Your task to perform on an android device: allow cookies in the chrome app Image 0: 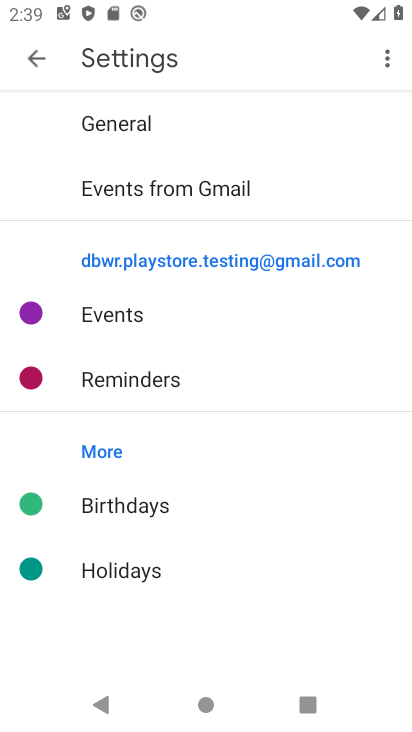
Step 0: press home button
Your task to perform on an android device: allow cookies in the chrome app Image 1: 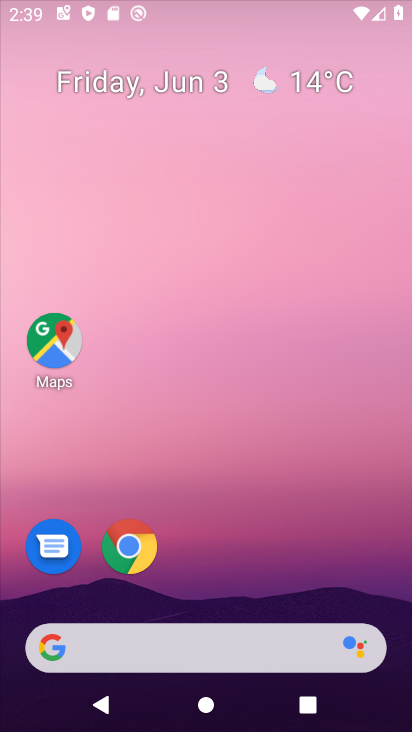
Step 1: drag from (264, 556) to (358, 0)
Your task to perform on an android device: allow cookies in the chrome app Image 2: 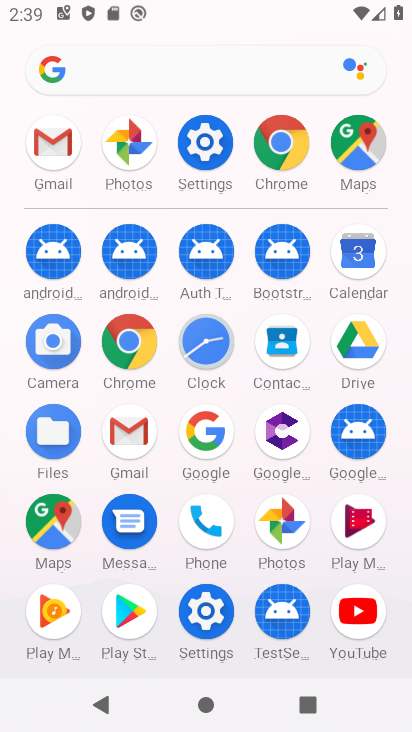
Step 2: click (279, 152)
Your task to perform on an android device: allow cookies in the chrome app Image 3: 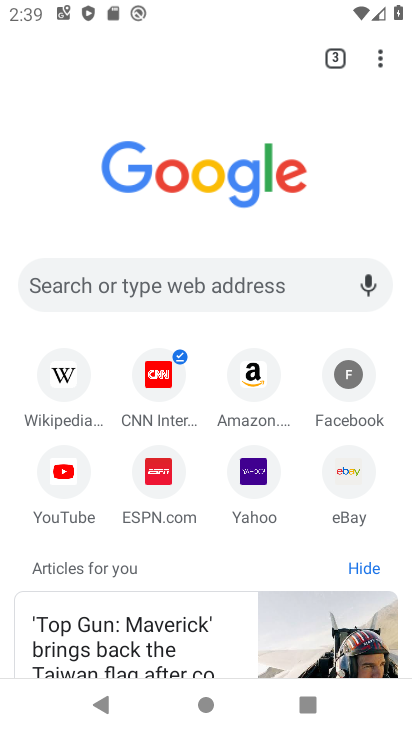
Step 3: drag from (376, 51) to (203, 473)
Your task to perform on an android device: allow cookies in the chrome app Image 4: 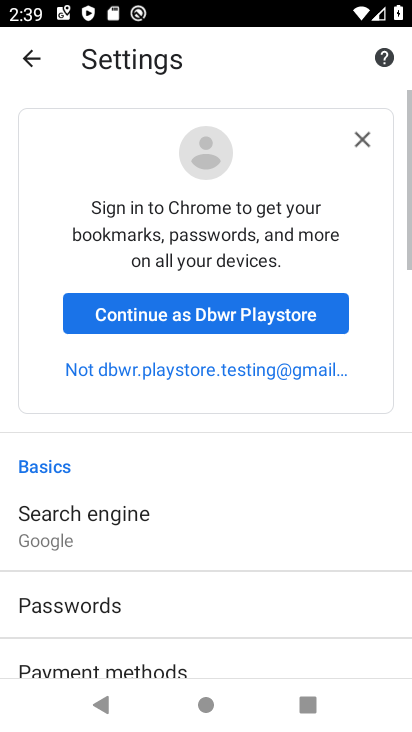
Step 4: drag from (166, 625) to (292, 60)
Your task to perform on an android device: allow cookies in the chrome app Image 5: 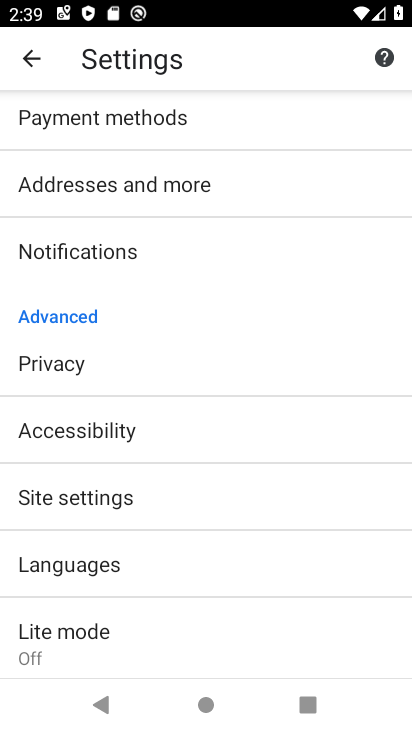
Step 5: click (144, 498)
Your task to perform on an android device: allow cookies in the chrome app Image 6: 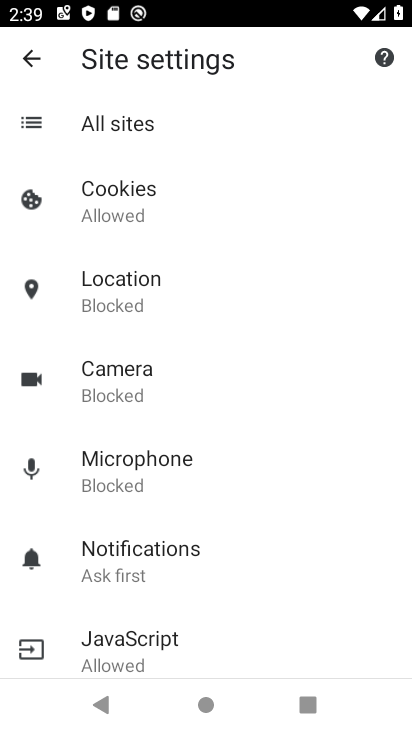
Step 6: click (104, 203)
Your task to perform on an android device: allow cookies in the chrome app Image 7: 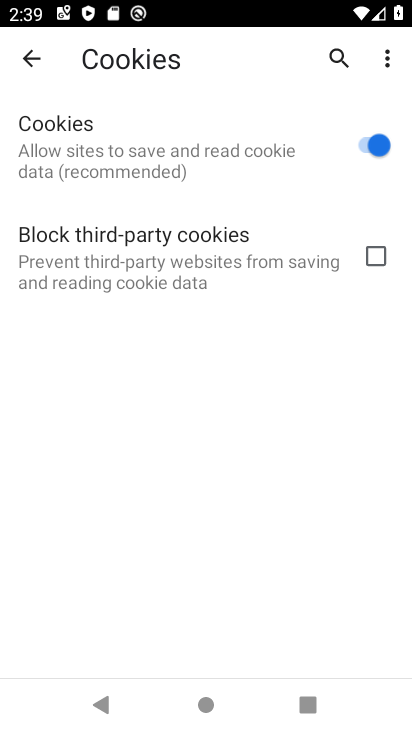
Step 7: task complete